Your task to perform on an android device: turn off airplane mode Image 0: 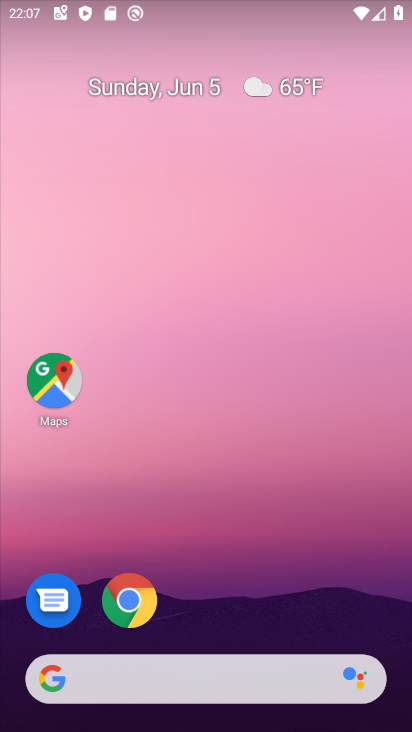
Step 0: drag from (297, 570) to (338, 129)
Your task to perform on an android device: turn off airplane mode Image 1: 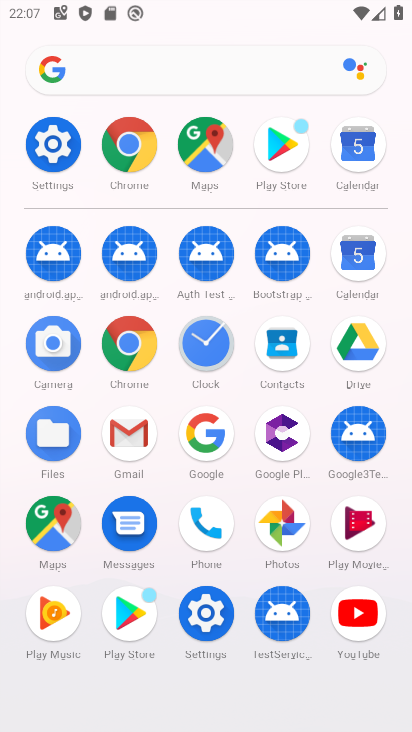
Step 1: click (58, 144)
Your task to perform on an android device: turn off airplane mode Image 2: 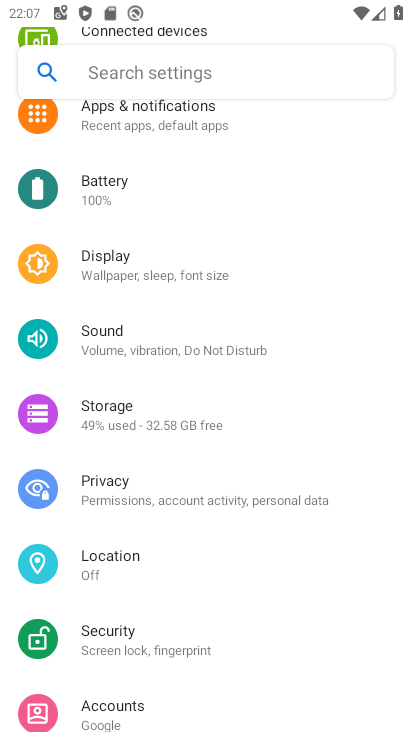
Step 2: drag from (178, 181) to (189, 564)
Your task to perform on an android device: turn off airplane mode Image 3: 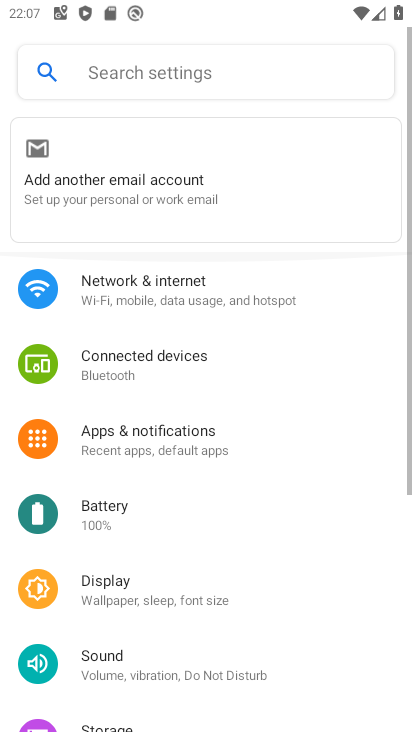
Step 3: click (190, 565)
Your task to perform on an android device: turn off airplane mode Image 4: 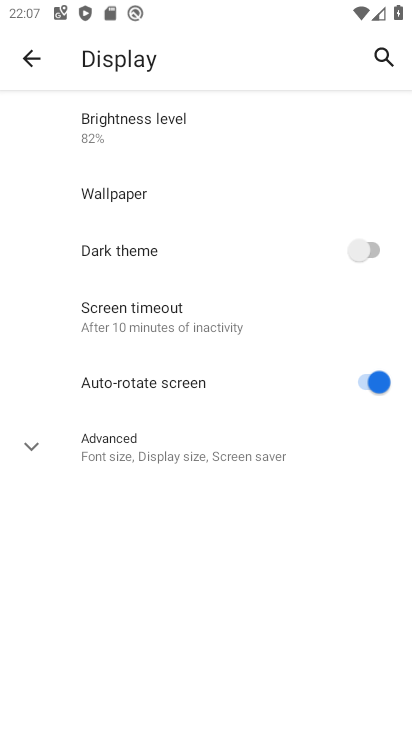
Step 4: click (44, 54)
Your task to perform on an android device: turn off airplane mode Image 5: 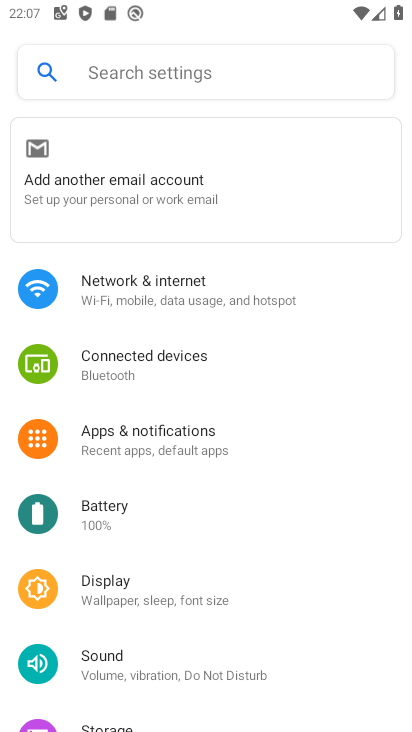
Step 5: click (171, 301)
Your task to perform on an android device: turn off airplane mode Image 6: 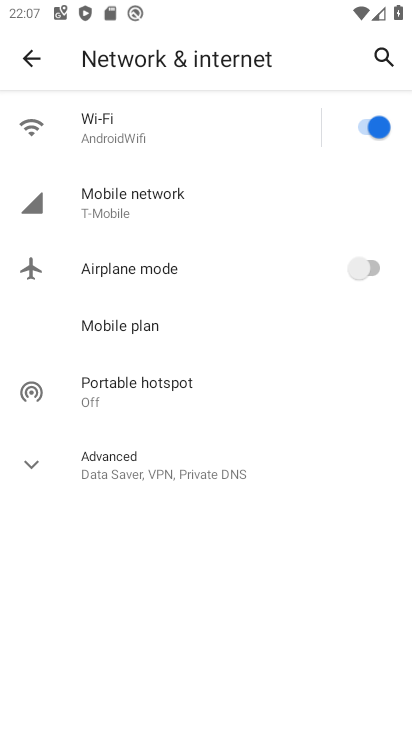
Step 6: click (371, 123)
Your task to perform on an android device: turn off airplane mode Image 7: 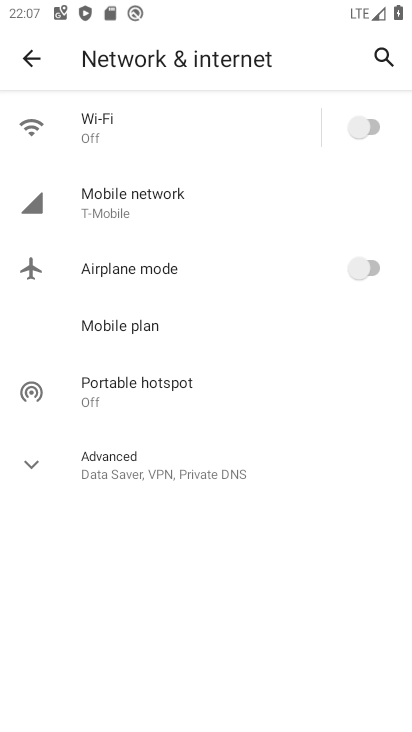
Step 7: task complete